Your task to perform on an android device: Search for pizza restaurants on Maps Image 0: 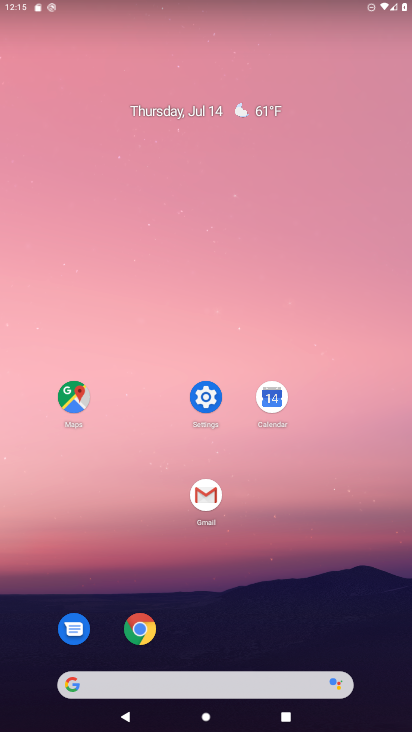
Step 0: click (68, 402)
Your task to perform on an android device: Search for pizza restaurants on Maps Image 1: 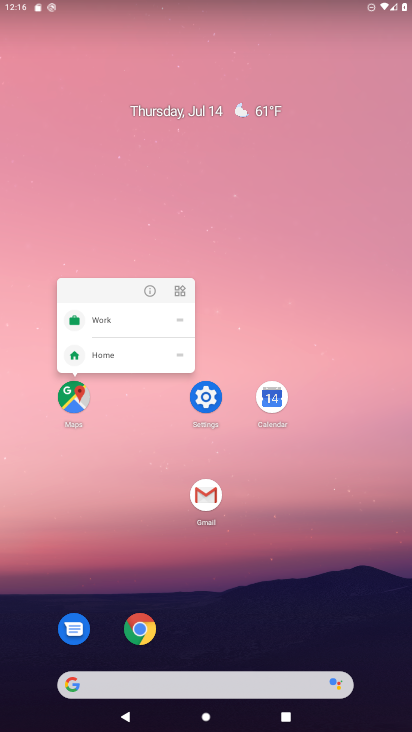
Step 1: click (75, 400)
Your task to perform on an android device: Search for pizza restaurants on Maps Image 2: 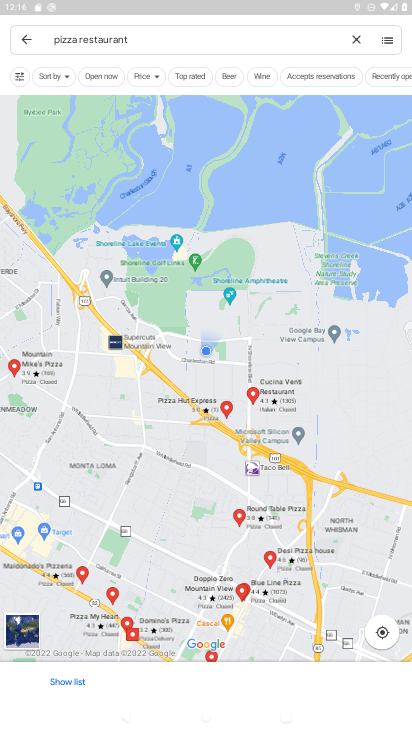
Step 2: task complete